Your task to perform on an android device: open app "Upside-Cash back on gas & food" (install if not already installed) Image 0: 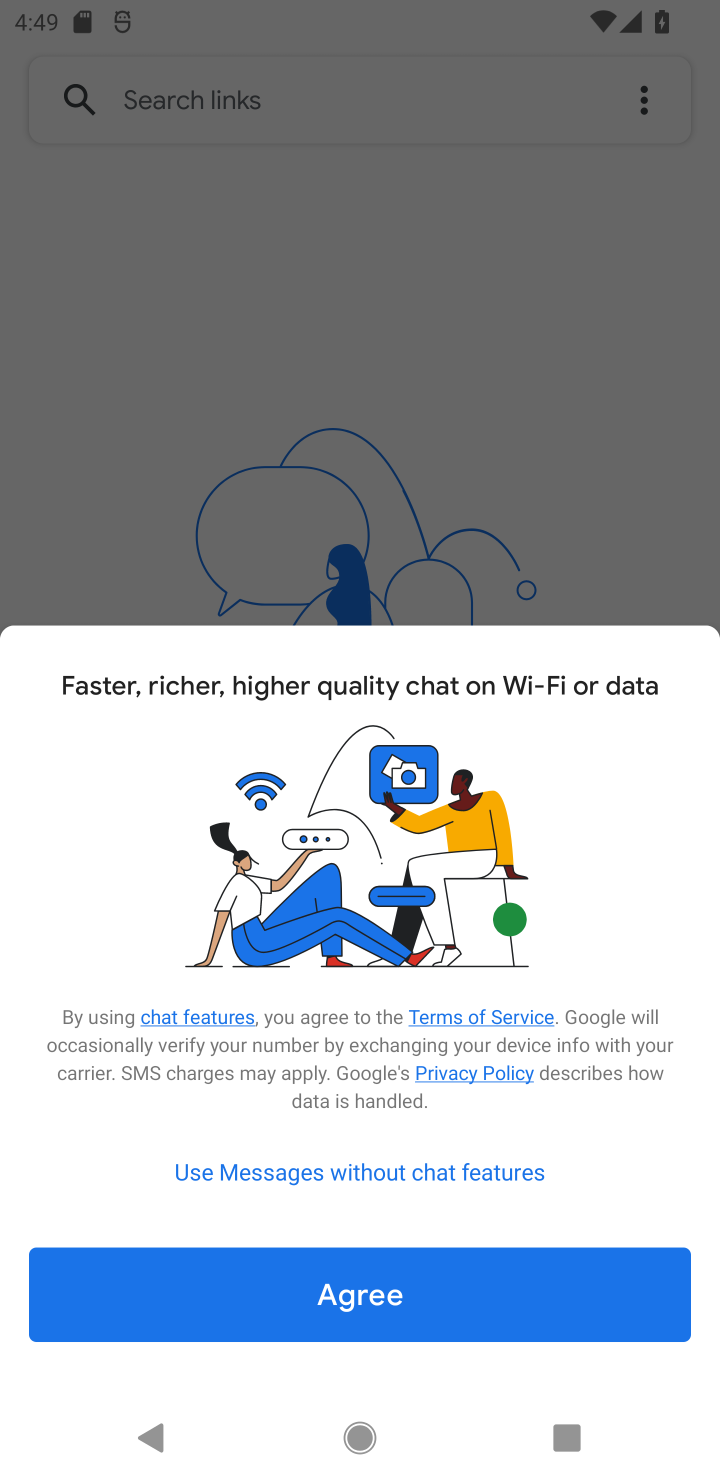
Step 0: press home button
Your task to perform on an android device: open app "Upside-Cash back on gas & food" (install if not already installed) Image 1: 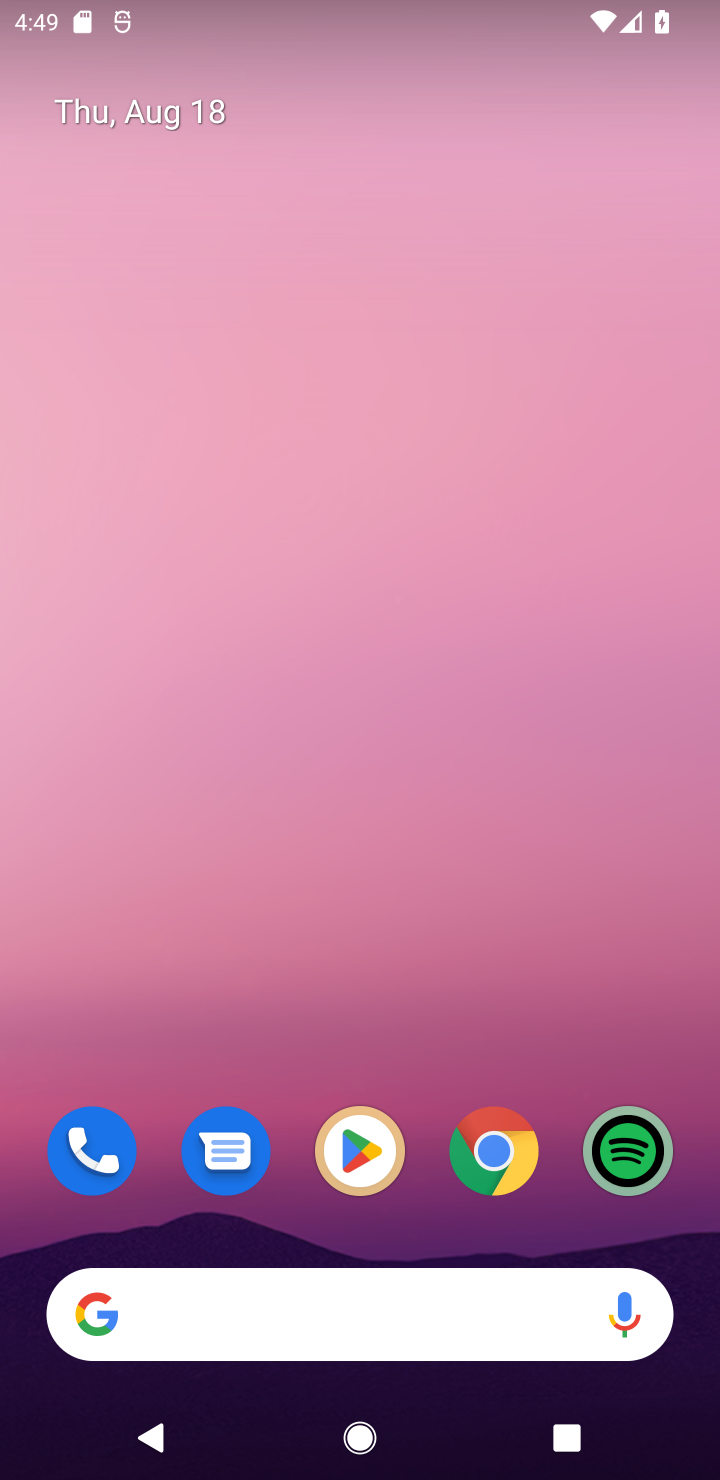
Step 1: click (371, 1122)
Your task to perform on an android device: open app "Upside-Cash back on gas & food" (install if not already installed) Image 2: 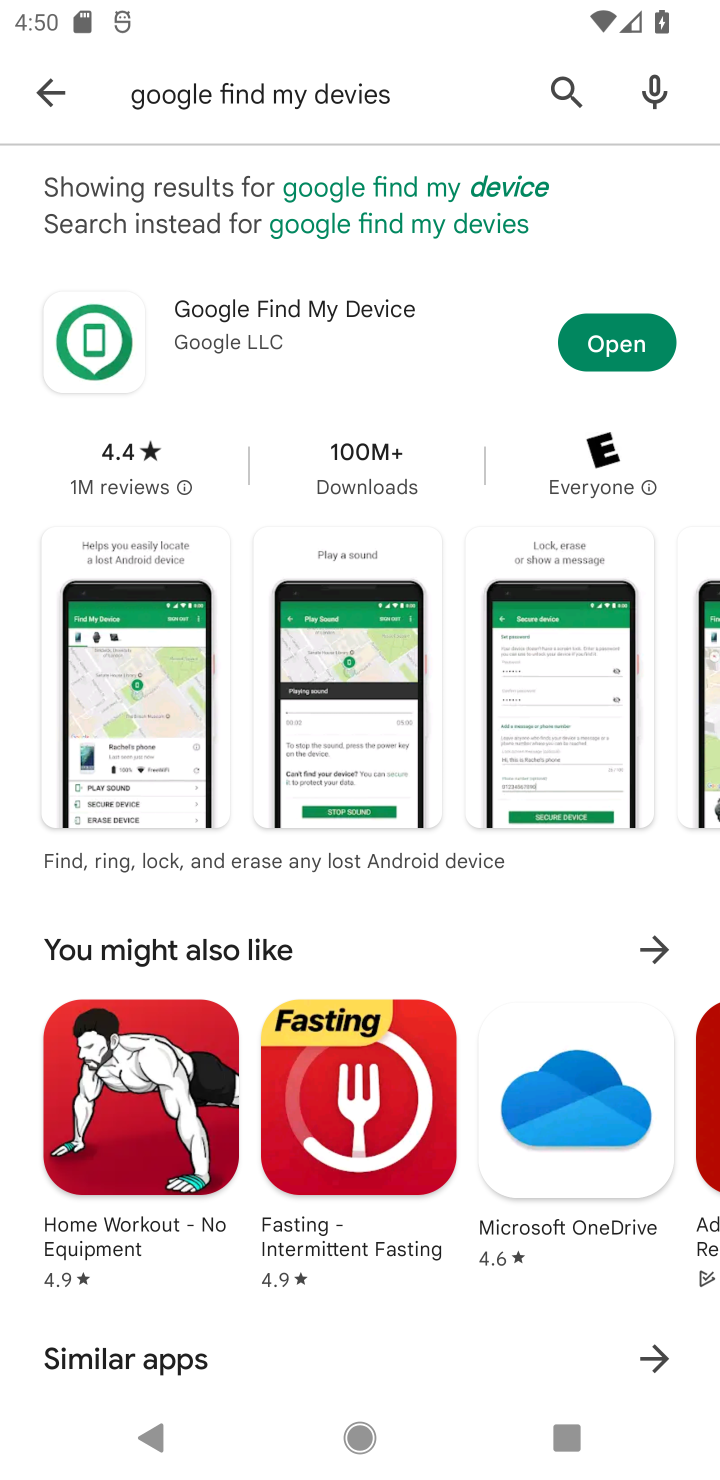
Step 2: click (560, 132)
Your task to perform on an android device: open app "Upside-Cash back on gas & food" (install if not already installed) Image 3: 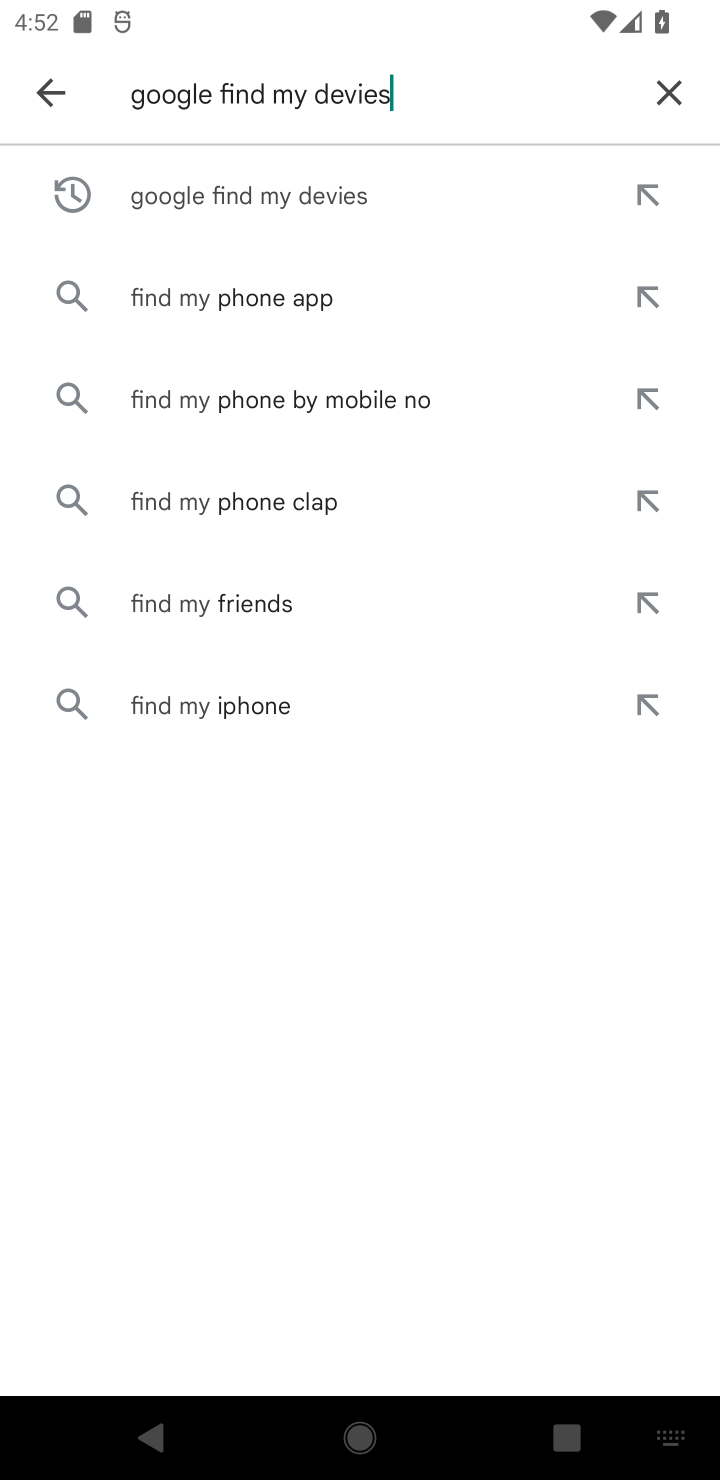
Step 3: click (682, 90)
Your task to perform on an android device: open app "Upside-Cash back on gas & food" (install if not already installed) Image 4: 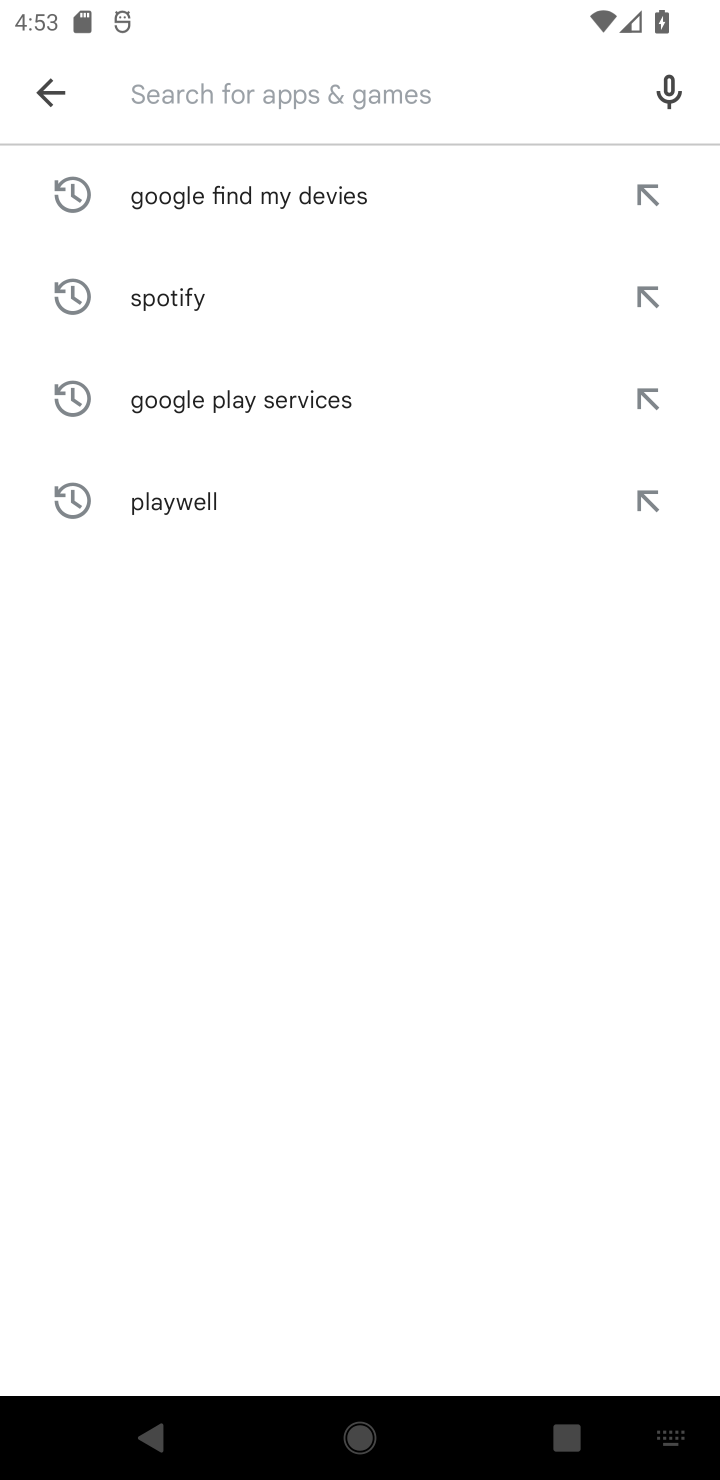
Step 4: type "uside"
Your task to perform on an android device: open app "Upside-Cash back on gas & food" (install if not already installed) Image 5: 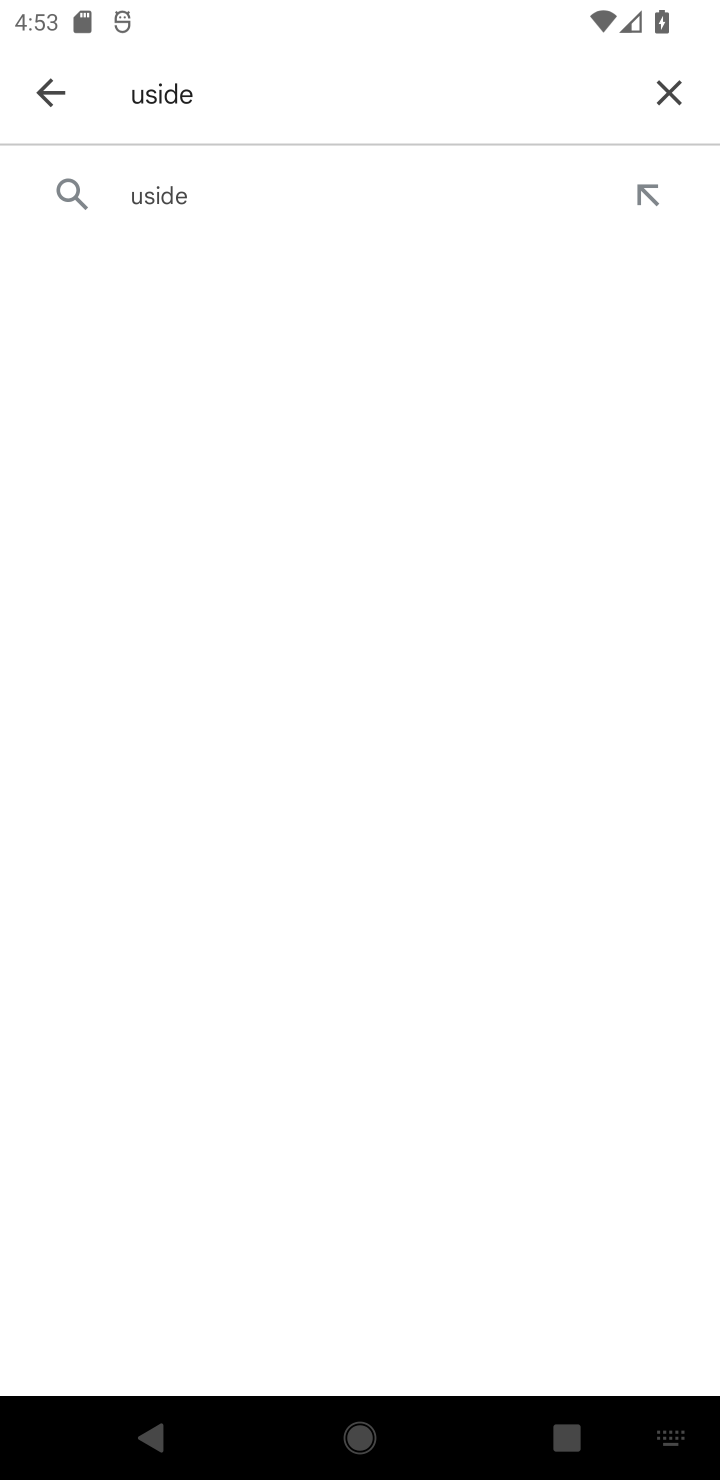
Step 5: click (203, 211)
Your task to perform on an android device: open app "Upside-Cash back on gas & food" (install if not already installed) Image 6: 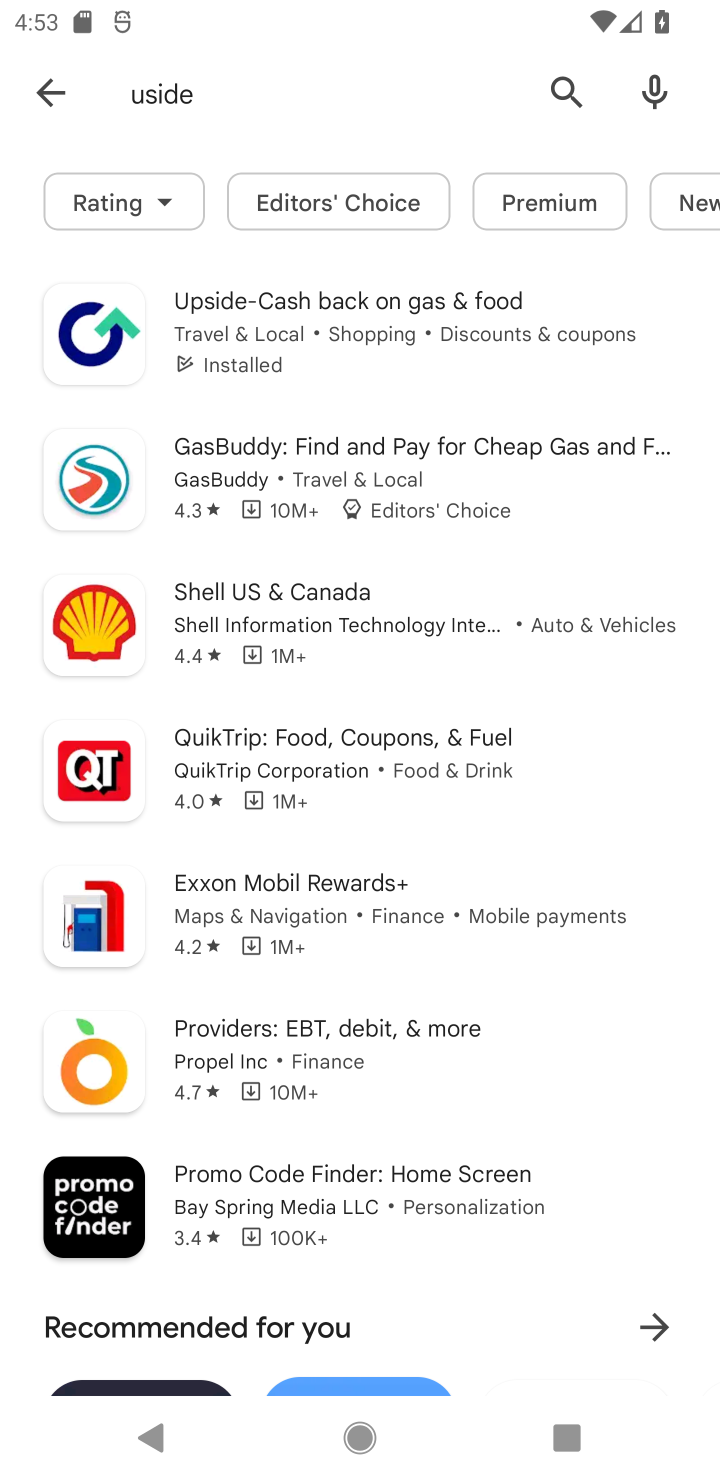
Step 6: click (220, 298)
Your task to perform on an android device: open app "Upside-Cash back on gas & food" (install if not already installed) Image 7: 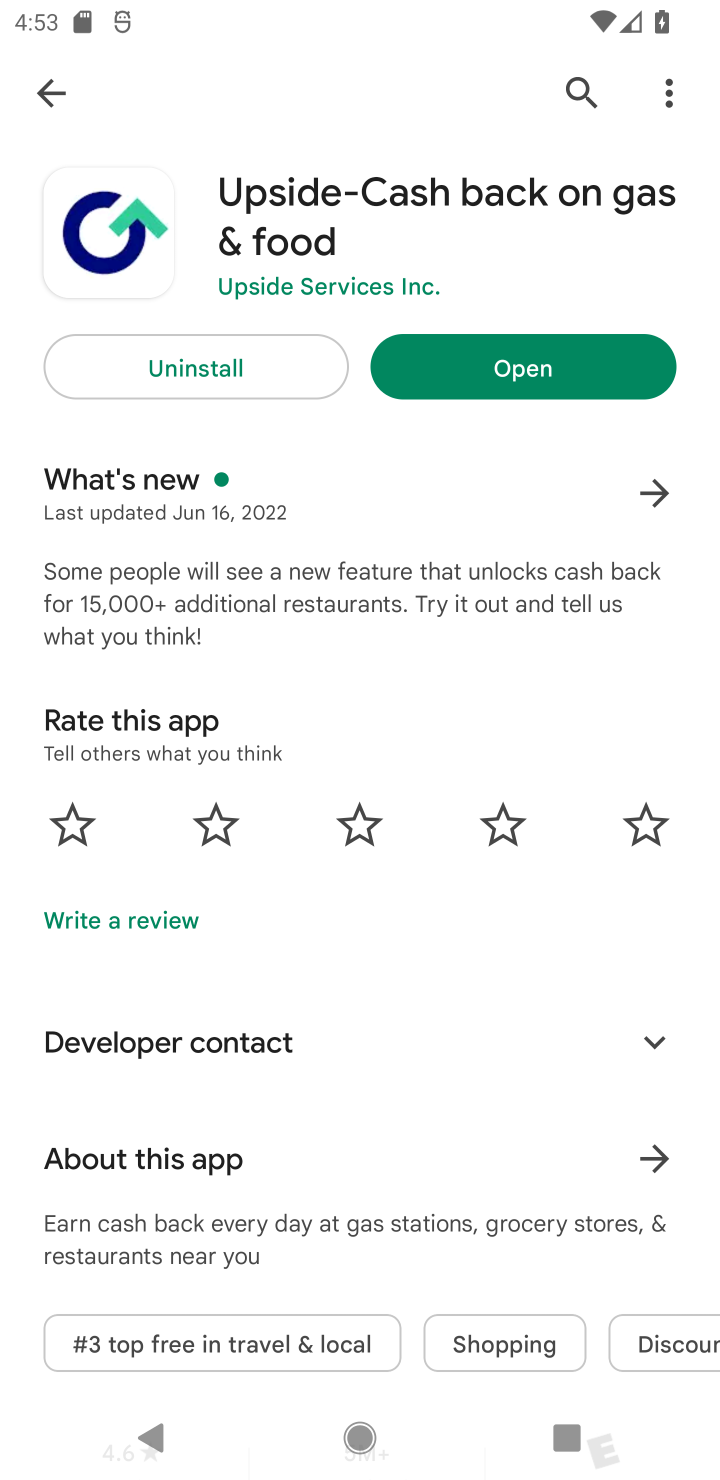
Step 7: click (189, 386)
Your task to perform on an android device: open app "Upside-Cash back on gas & food" (install if not already installed) Image 8: 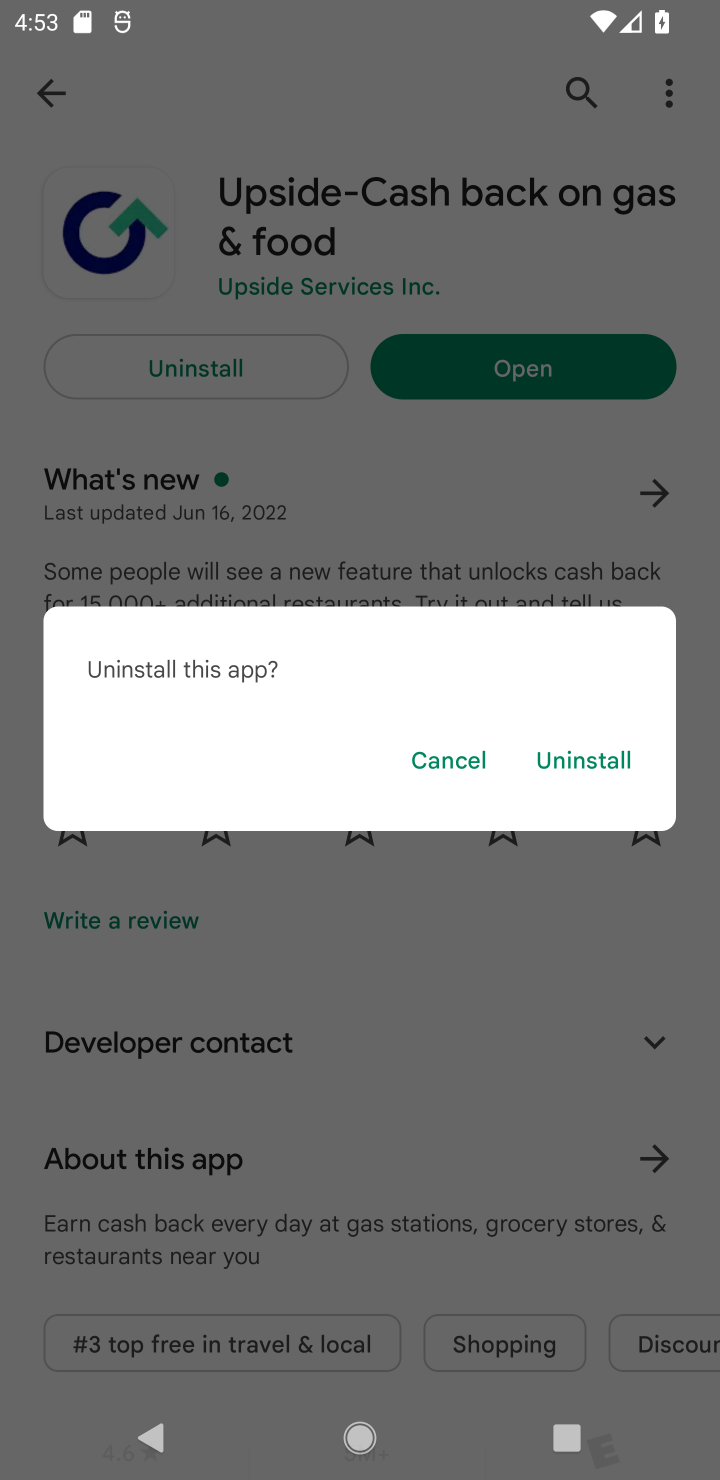
Step 8: click (575, 763)
Your task to perform on an android device: open app "Upside-Cash back on gas & food" (install if not already installed) Image 9: 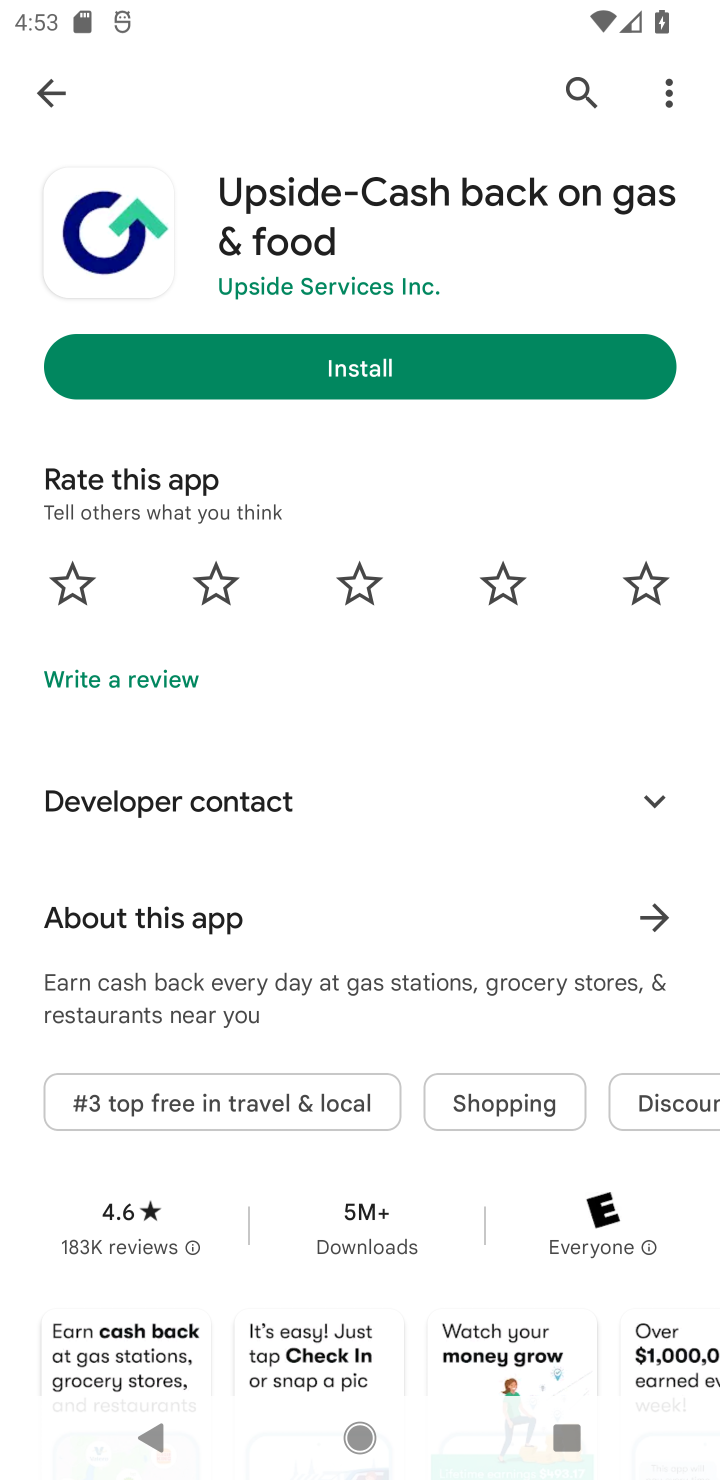
Step 9: task complete